Your task to perform on an android device: Go to CNN.com Image 0: 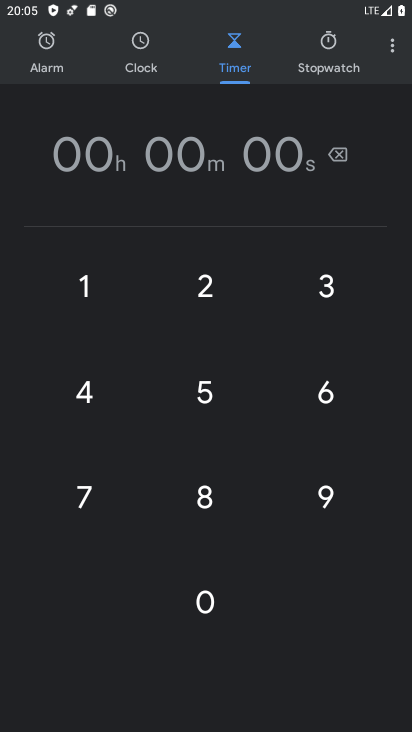
Step 0: press home button
Your task to perform on an android device: Go to CNN.com Image 1: 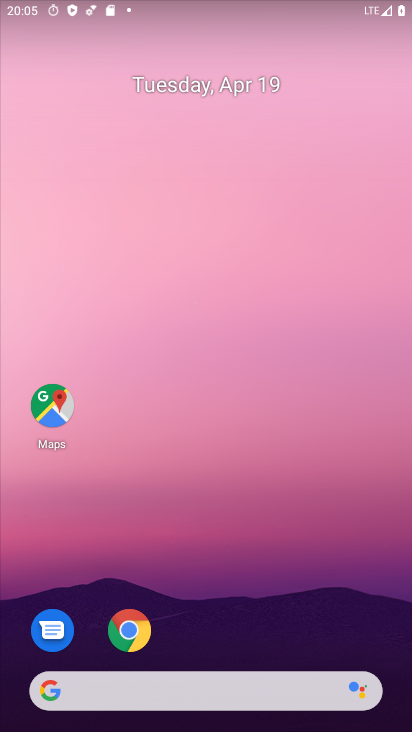
Step 1: click (123, 632)
Your task to perform on an android device: Go to CNN.com Image 2: 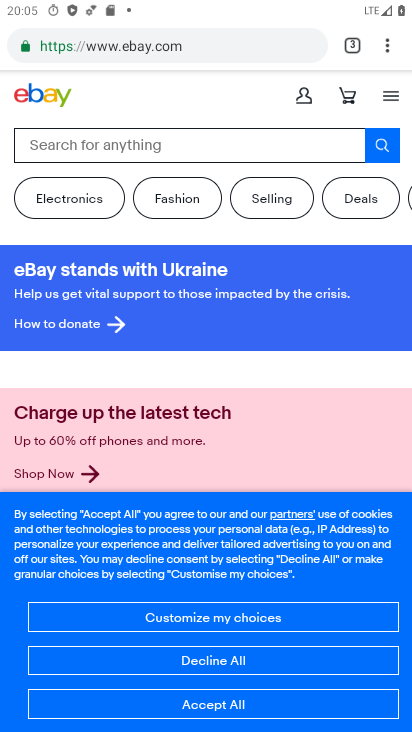
Step 2: click (350, 50)
Your task to perform on an android device: Go to CNN.com Image 3: 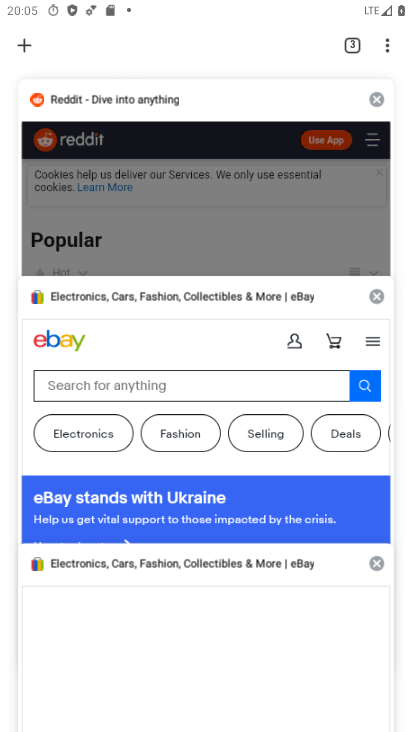
Step 3: click (22, 52)
Your task to perform on an android device: Go to CNN.com Image 4: 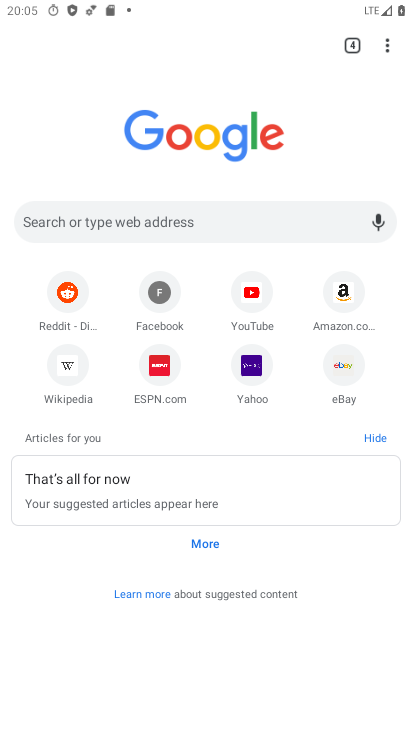
Step 4: click (111, 227)
Your task to perform on an android device: Go to CNN.com Image 5: 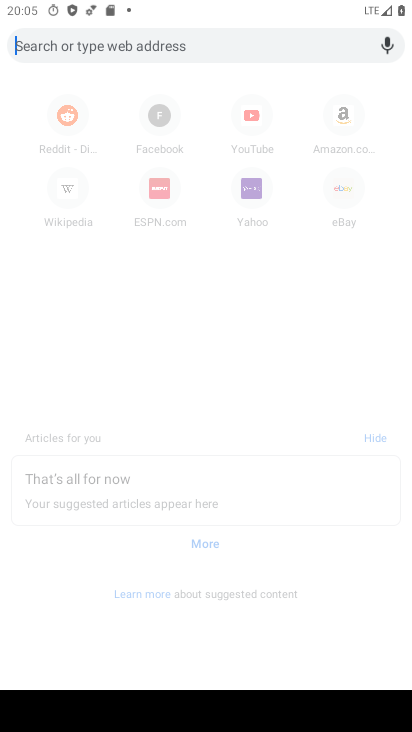
Step 5: type "cnn.com"
Your task to perform on an android device: Go to CNN.com Image 6: 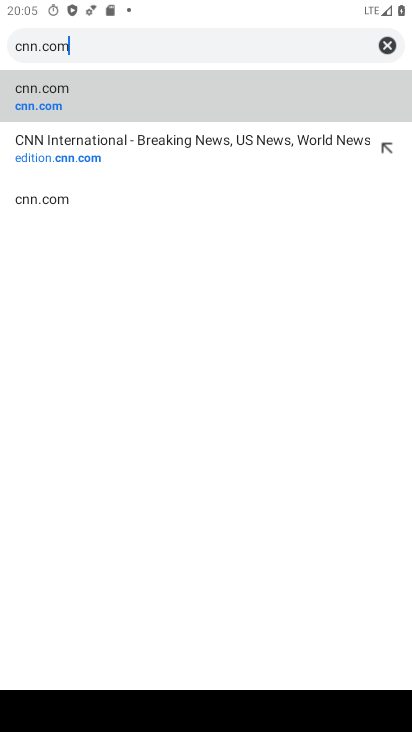
Step 6: click (333, 96)
Your task to perform on an android device: Go to CNN.com Image 7: 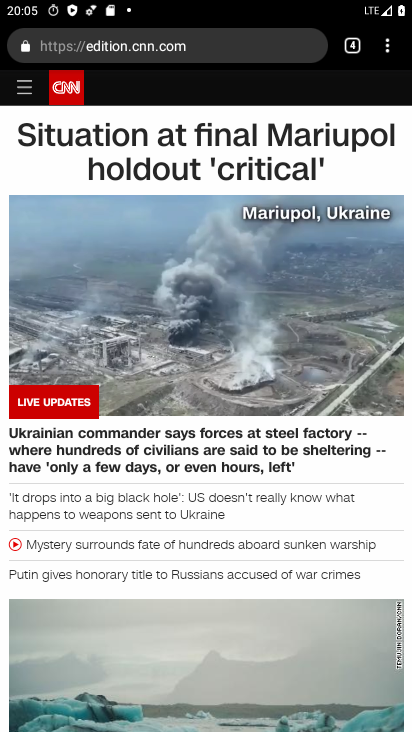
Step 7: task complete